Your task to perform on an android device: What's the weather going to be tomorrow? Image 0: 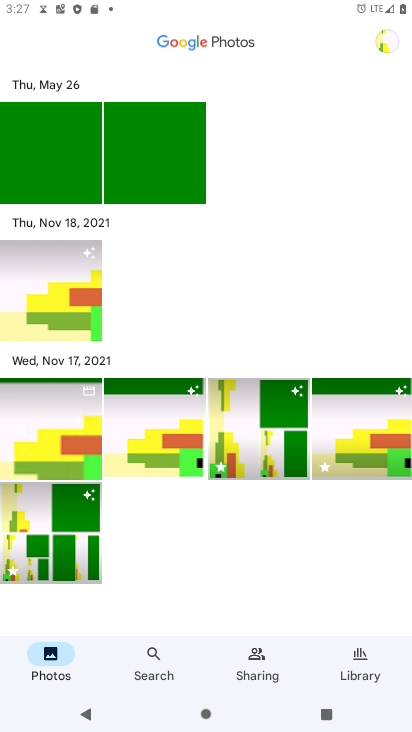
Step 0: press home button
Your task to perform on an android device: What's the weather going to be tomorrow? Image 1: 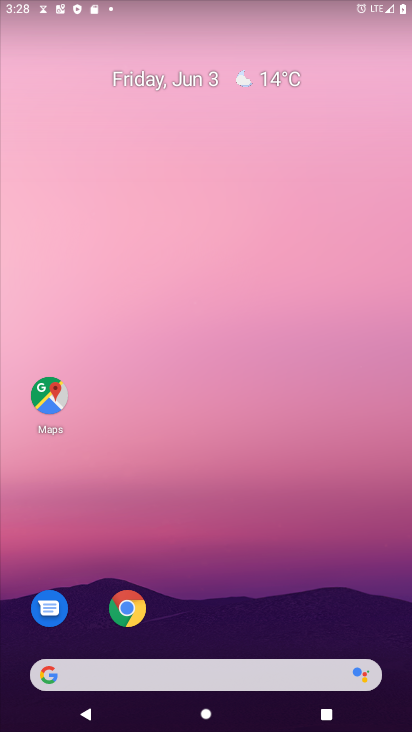
Step 1: click (263, 75)
Your task to perform on an android device: What's the weather going to be tomorrow? Image 2: 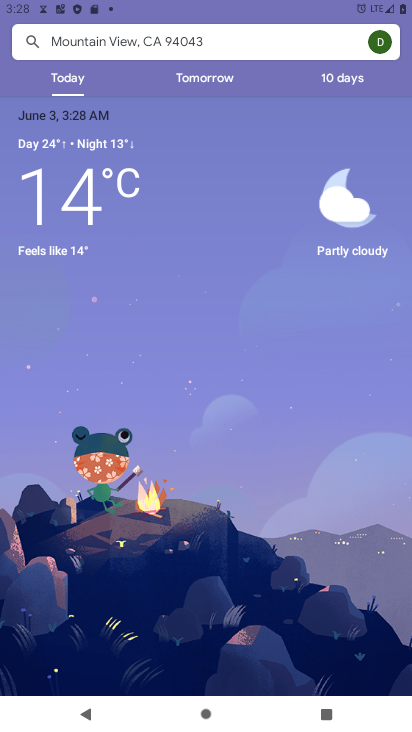
Step 2: click (191, 84)
Your task to perform on an android device: What's the weather going to be tomorrow? Image 3: 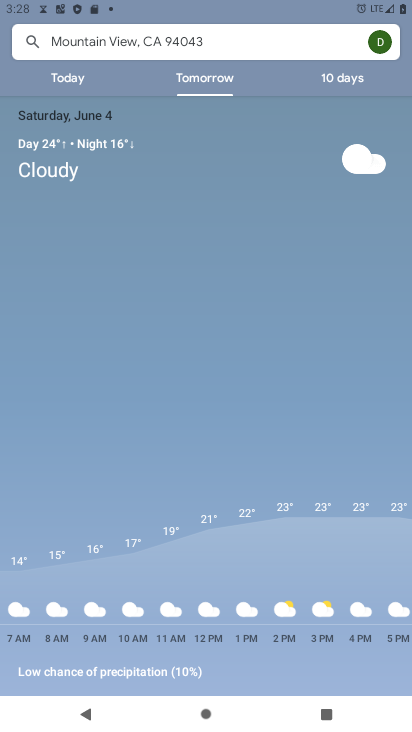
Step 3: task complete